Your task to perform on an android device: Go to settings Image 0: 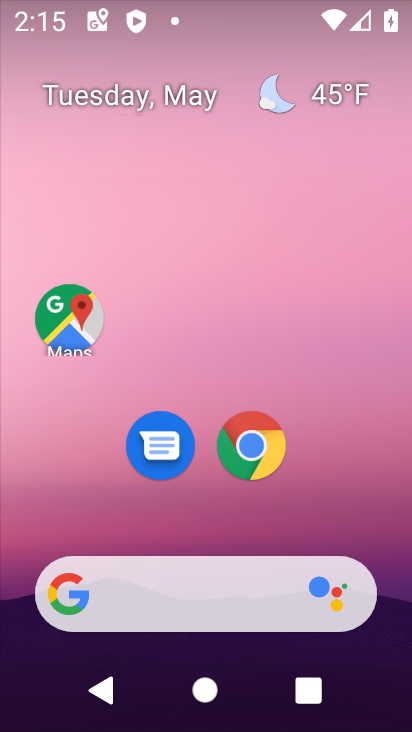
Step 0: drag from (247, 520) to (248, 68)
Your task to perform on an android device: Go to settings Image 1: 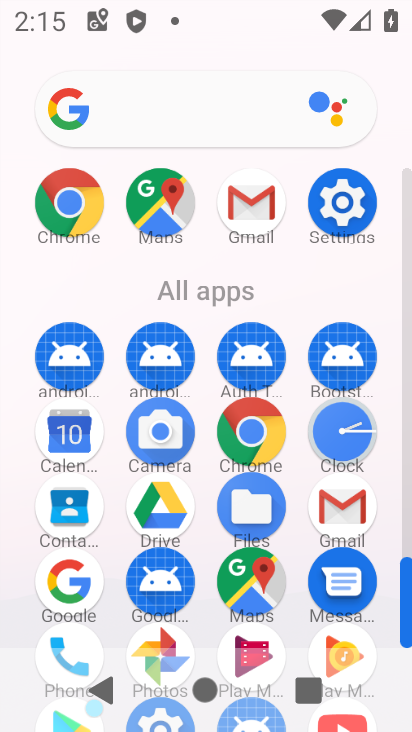
Step 1: click (362, 212)
Your task to perform on an android device: Go to settings Image 2: 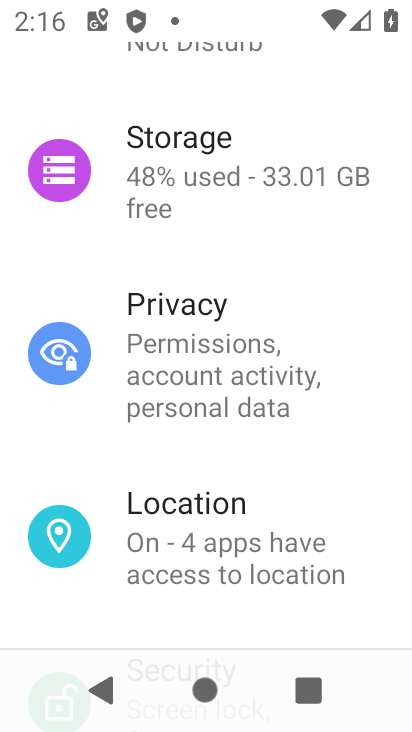
Step 2: task complete